Your task to perform on an android device: Open Google Chrome Image 0: 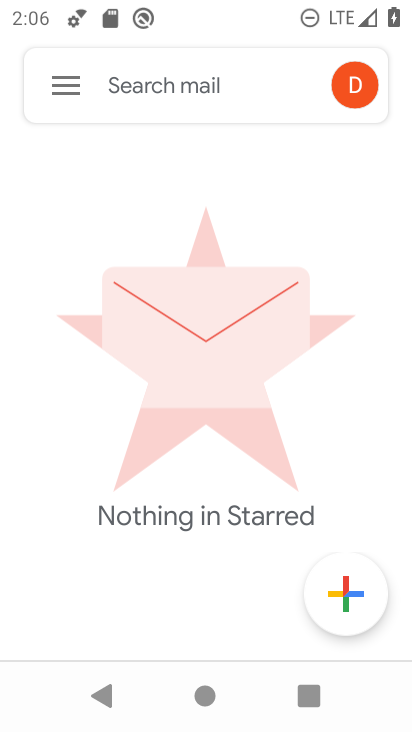
Step 0: press home button
Your task to perform on an android device: Open Google Chrome Image 1: 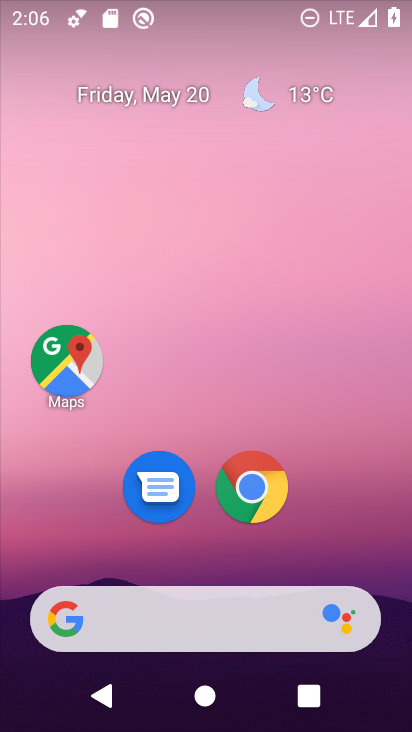
Step 1: click (247, 480)
Your task to perform on an android device: Open Google Chrome Image 2: 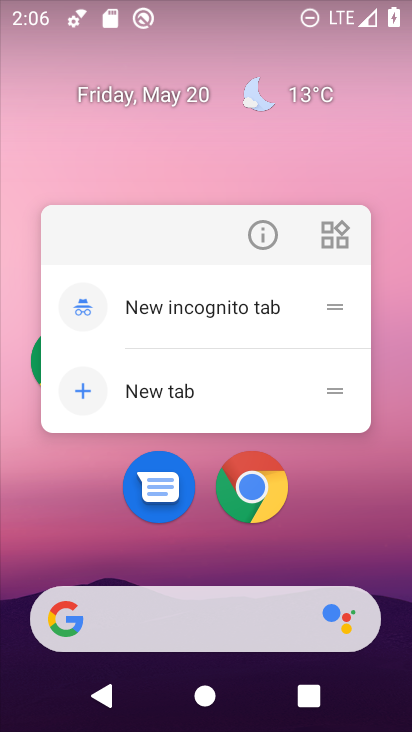
Step 2: click (247, 480)
Your task to perform on an android device: Open Google Chrome Image 3: 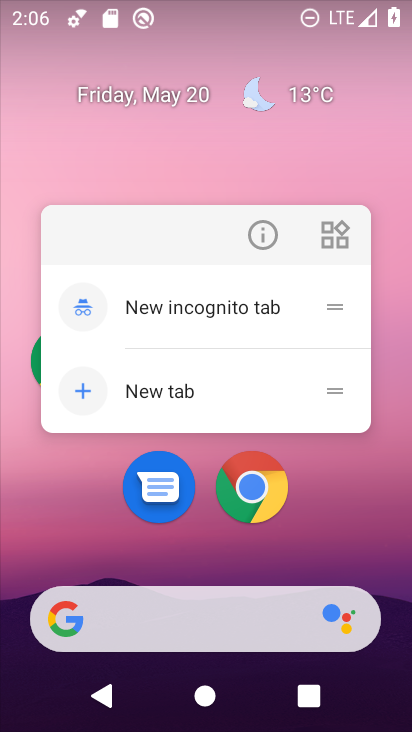
Step 3: click (248, 478)
Your task to perform on an android device: Open Google Chrome Image 4: 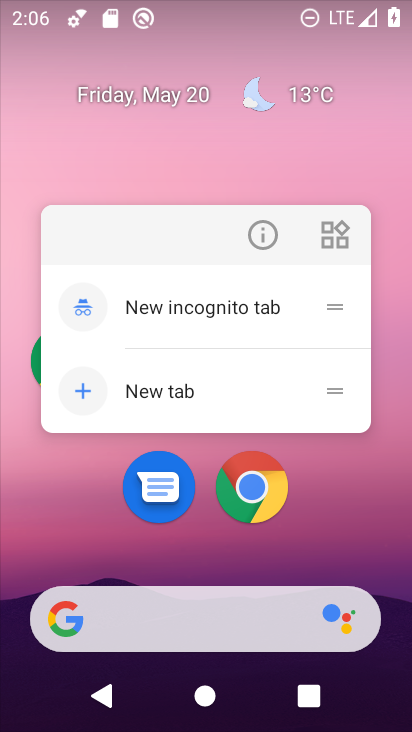
Step 4: click (248, 478)
Your task to perform on an android device: Open Google Chrome Image 5: 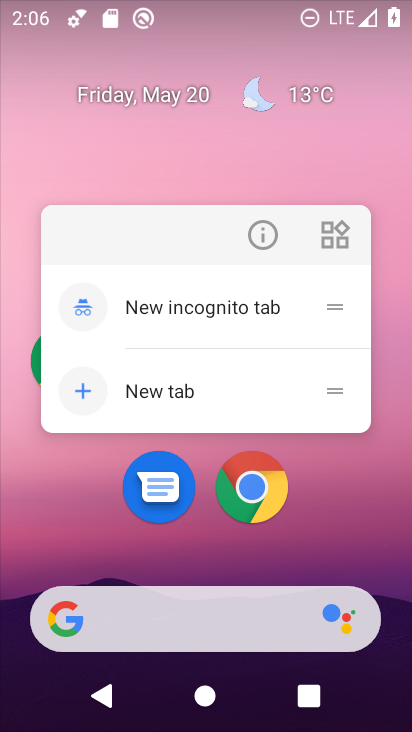
Step 5: click (229, 549)
Your task to perform on an android device: Open Google Chrome Image 6: 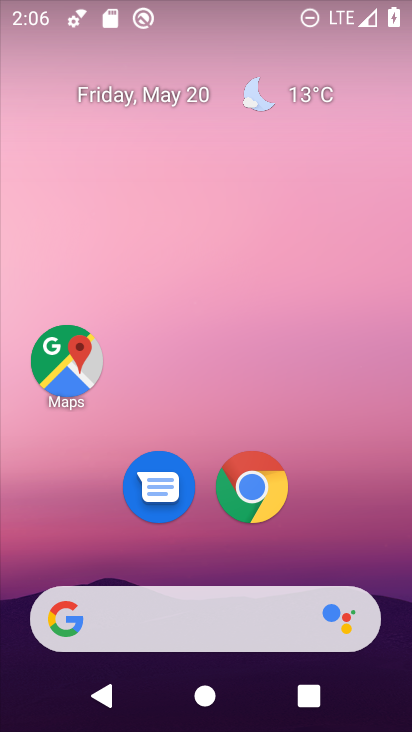
Step 6: drag from (257, 566) to (306, 268)
Your task to perform on an android device: Open Google Chrome Image 7: 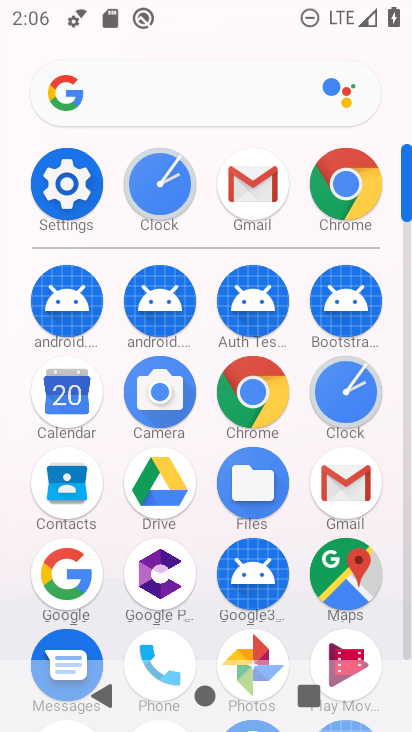
Step 7: click (344, 176)
Your task to perform on an android device: Open Google Chrome Image 8: 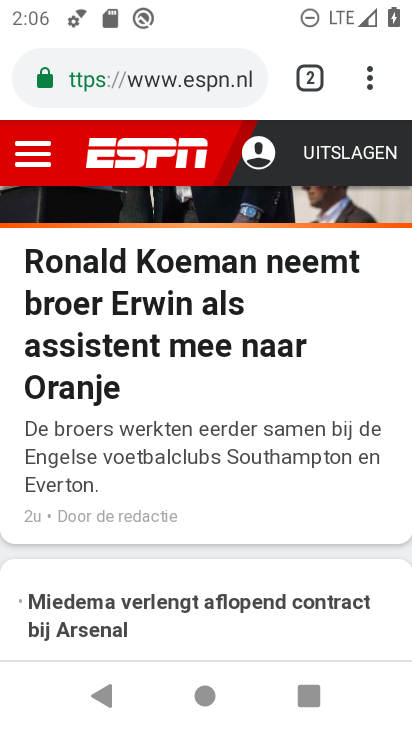
Step 8: task complete